Your task to perform on an android device: Search for "asus zenbook" on newegg.com, select the first entry, add it to the cart, then select checkout. Image 0: 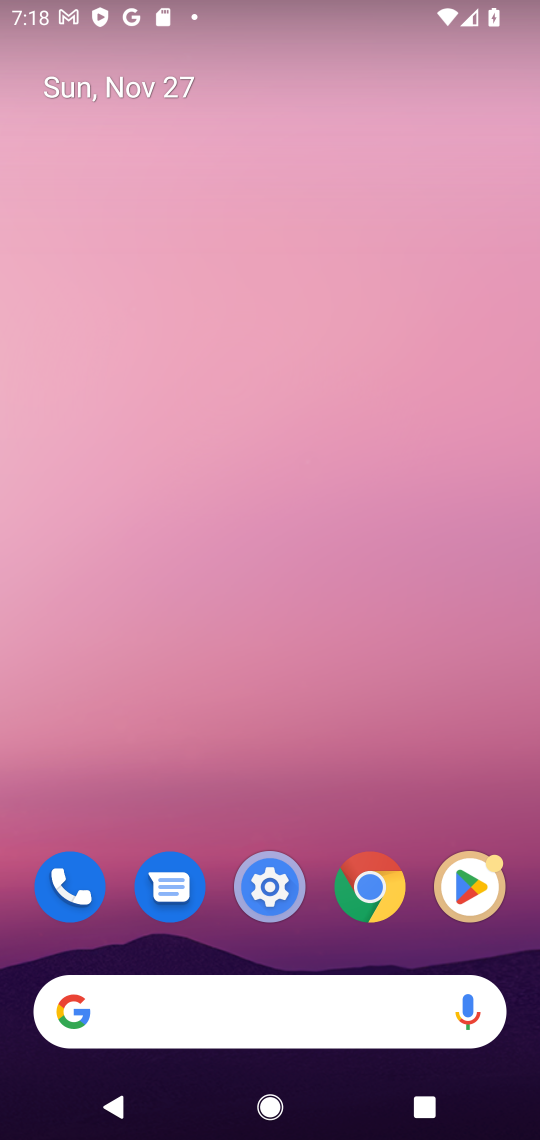
Step 0: click (179, 998)
Your task to perform on an android device: Search for "asus zenbook" on newegg.com, select the first entry, add it to the cart, then select checkout. Image 1: 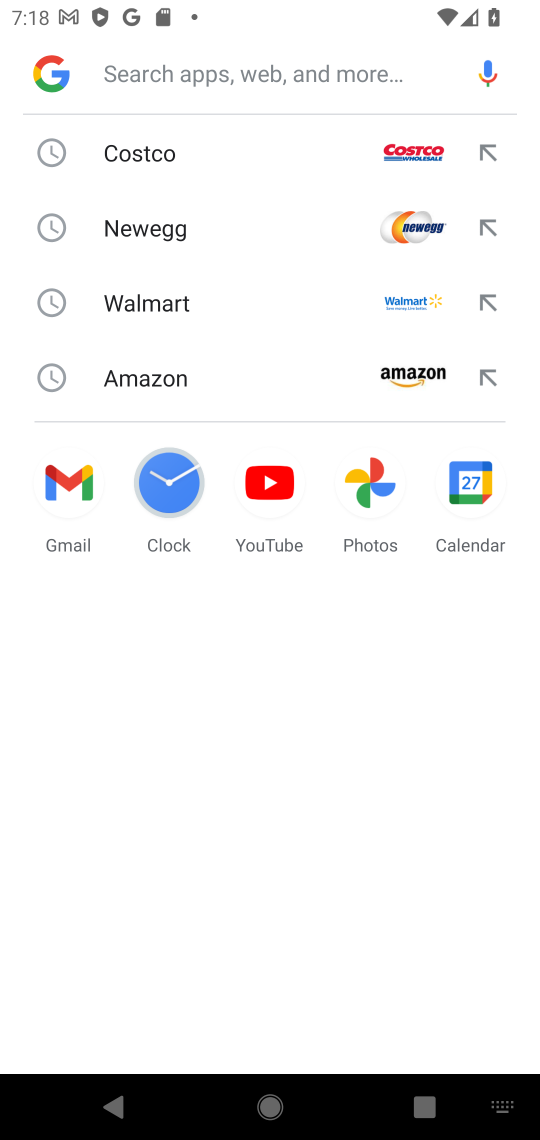
Step 1: type "newegg.com"
Your task to perform on an android device: Search for "asus zenbook" on newegg.com, select the first entry, add it to the cart, then select checkout. Image 2: 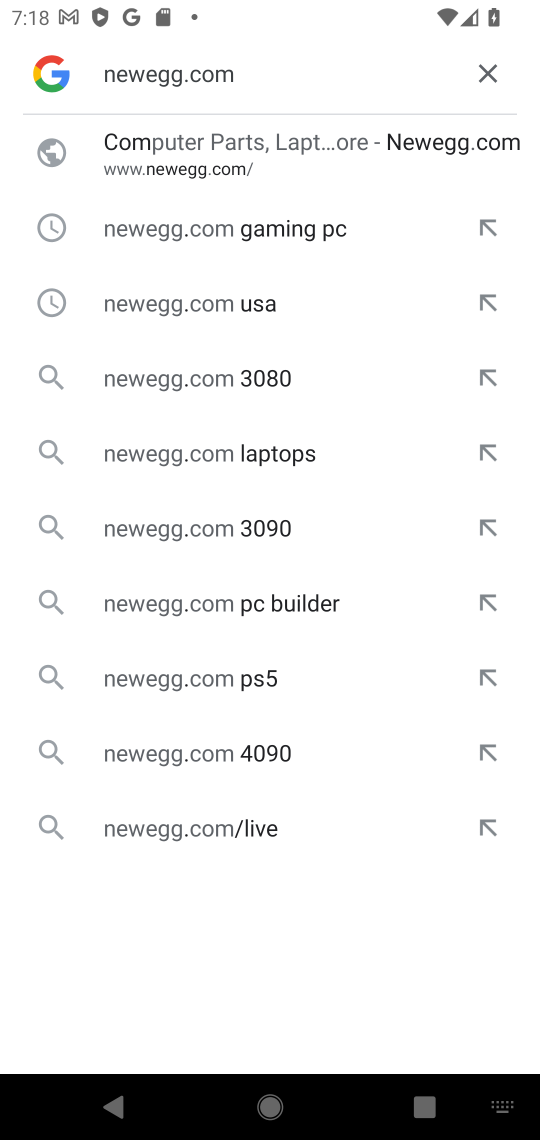
Step 2: click (285, 138)
Your task to perform on an android device: Search for "asus zenbook" on newegg.com, select the first entry, add it to the cart, then select checkout. Image 3: 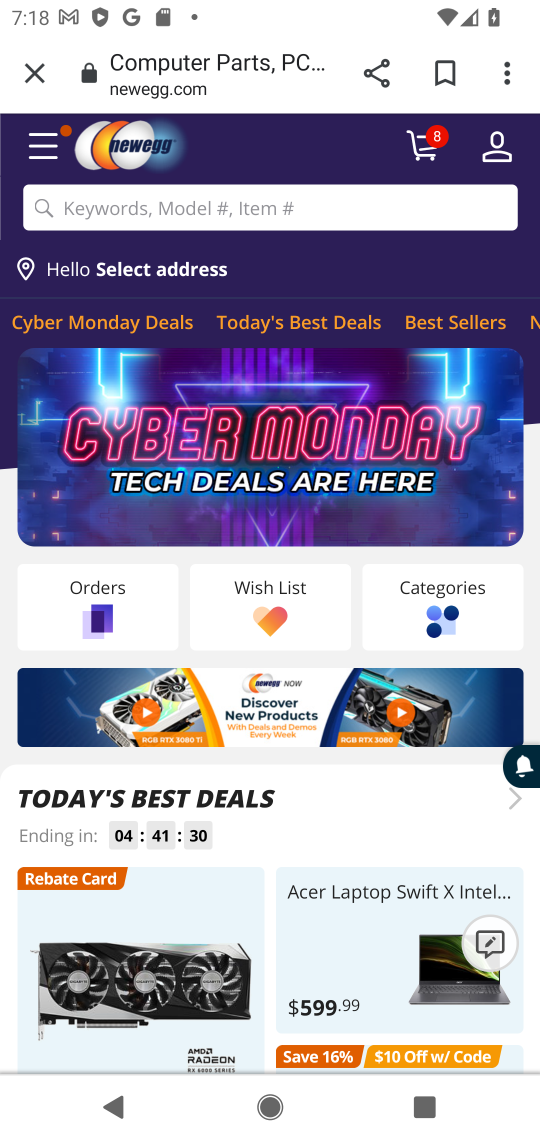
Step 3: click (255, 213)
Your task to perform on an android device: Search for "asus zenbook" on newegg.com, select the first entry, add it to the cart, then select checkout. Image 4: 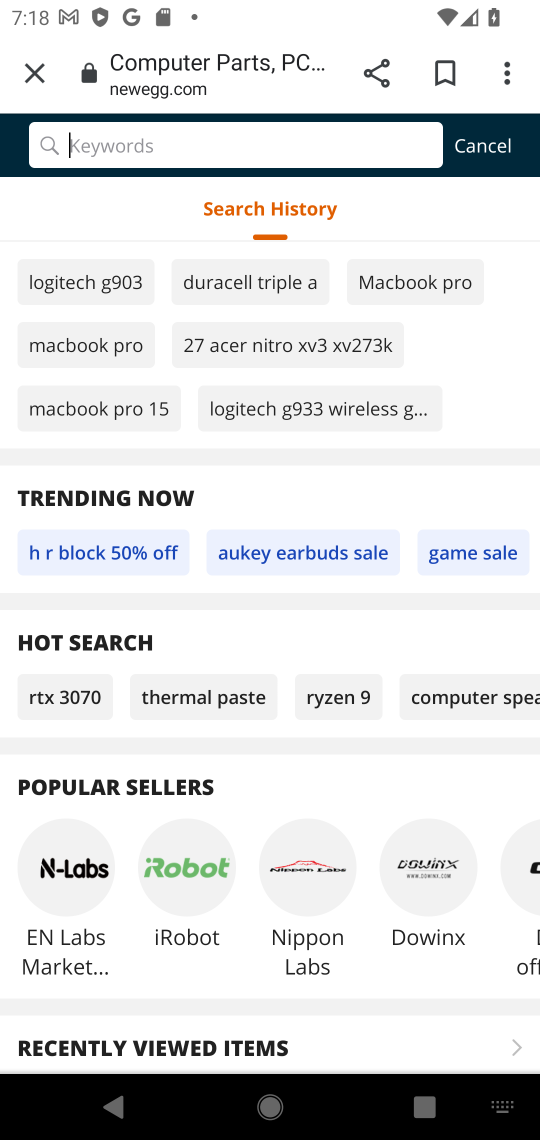
Step 4: type "asus zenbook"
Your task to perform on an android device: Search for "asus zenbook" on newegg.com, select the first entry, add it to the cart, then select checkout. Image 5: 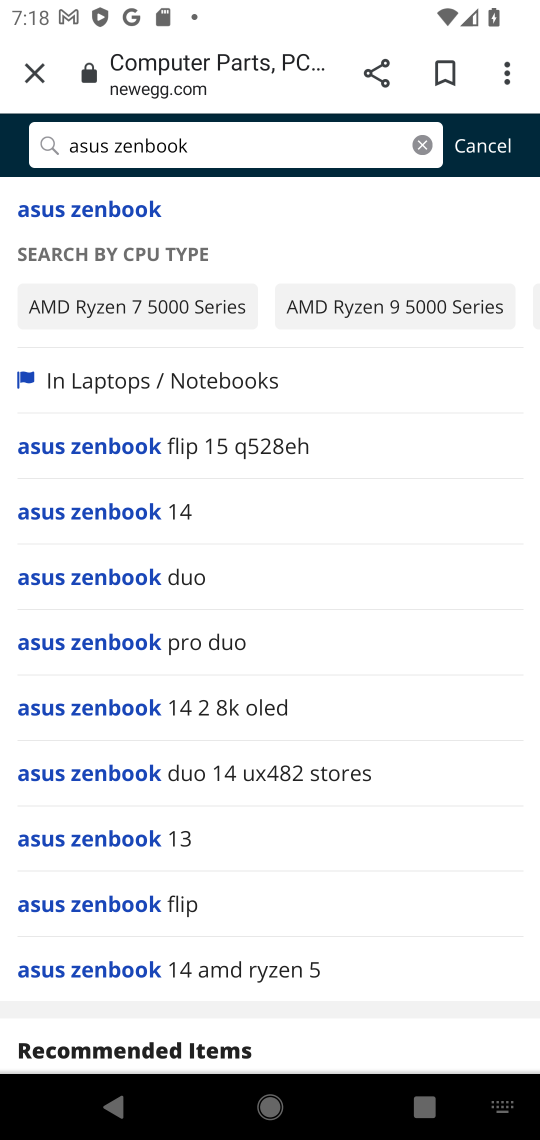
Step 5: click (180, 470)
Your task to perform on an android device: Search for "asus zenbook" on newegg.com, select the first entry, add it to the cart, then select checkout. Image 6: 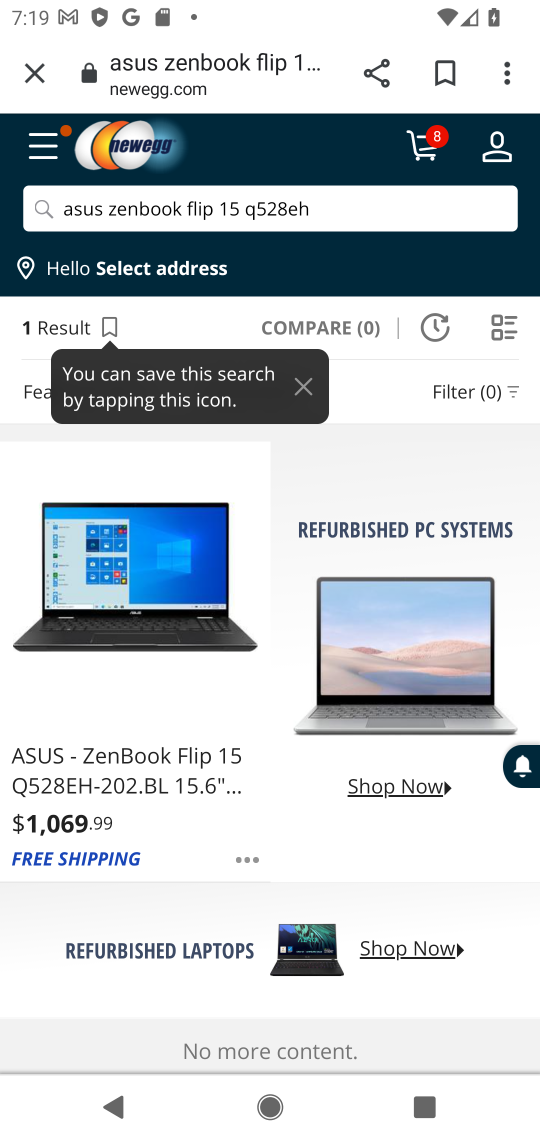
Step 6: click (144, 829)
Your task to perform on an android device: Search for "asus zenbook" on newegg.com, select the first entry, add it to the cart, then select checkout. Image 7: 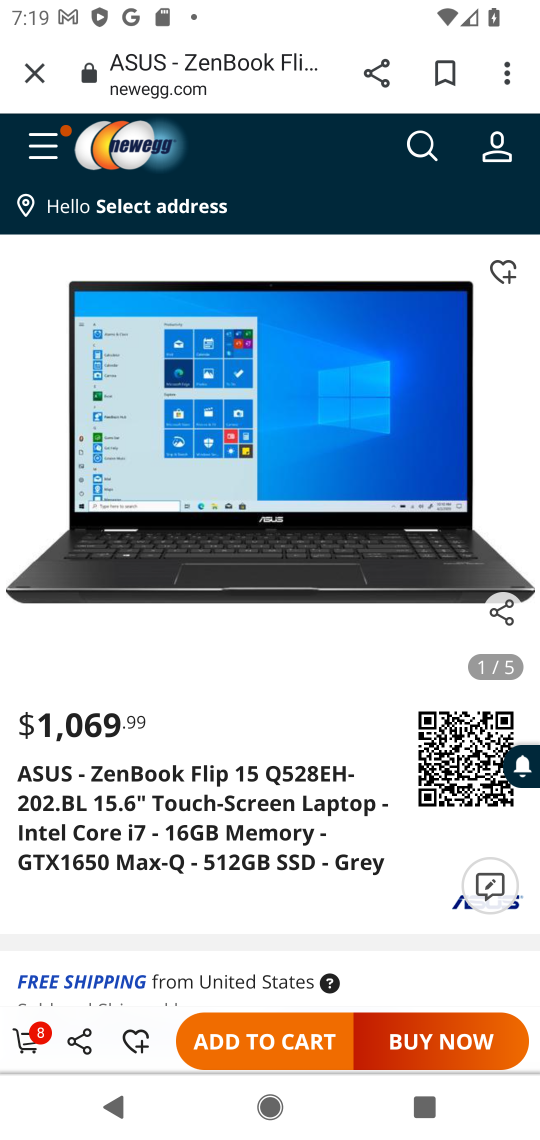
Step 7: click (263, 1028)
Your task to perform on an android device: Search for "asus zenbook" on newegg.com, select the first entry, add it to the cart, then select checkout. Image 8: 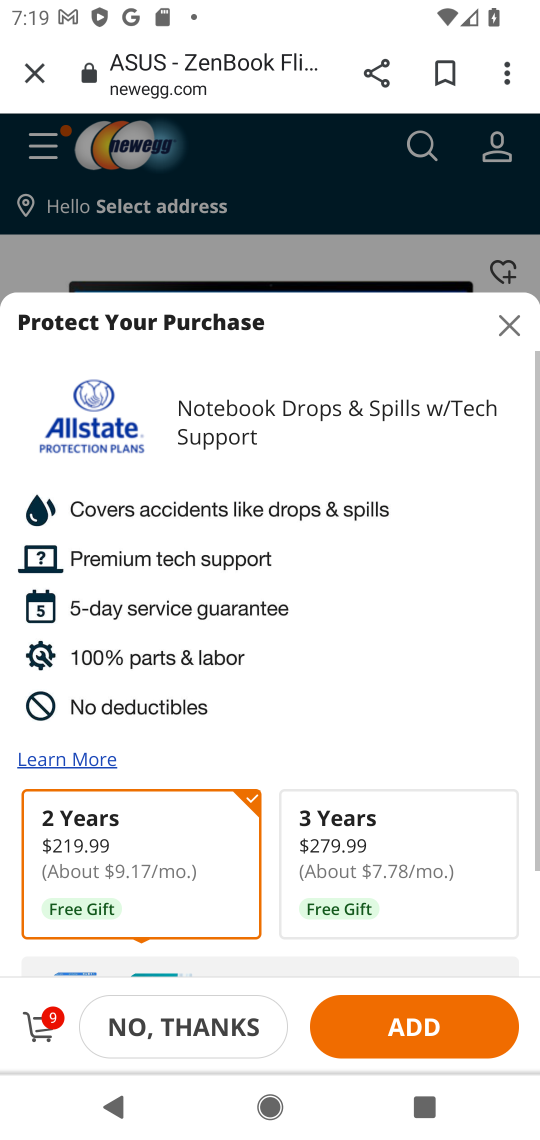
Step 8: task complete